Your task to perform on an android device: Add logitech g933 to the cart on bestbuy, then select checkout. Image 0: 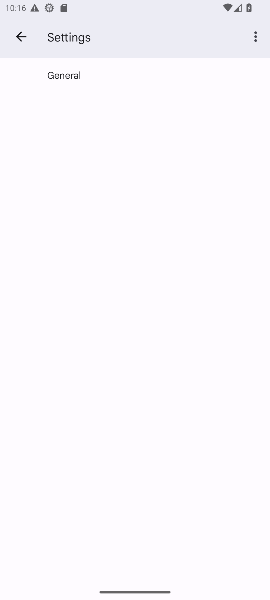
Step 0: press home button
Your task to perform on an android device: Add logitech g933 to the cart on bestbuy, then select checkout. Image 1: 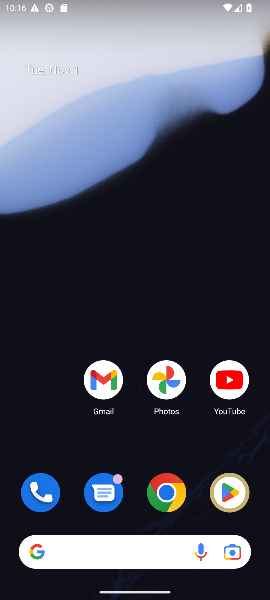
Step 1: click (159, 497)
Your task to perform on an android device: Add logitech g933 to the cart on bestbuy, then select checkout. Image 2: 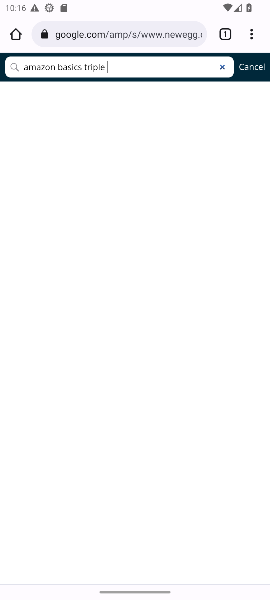
Step 2: click (92, 32)
Your task to perform on an android device: Add logitech g933 to the cart on bestbuy, then select checkout. Image 3: 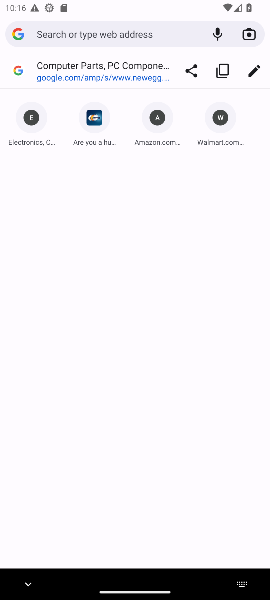
Step 3: type "bestbuy"
Your task to perform on an android device: Add logitech g933 to the cart on bestbuy, then select checkout. Image 4: 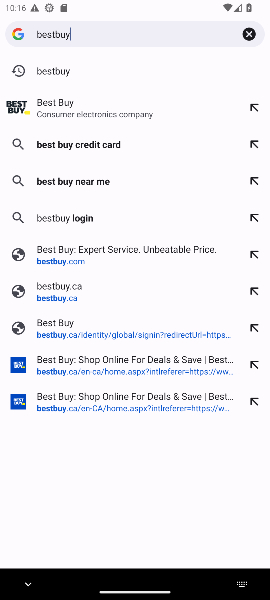
Step 4: click (44, 107)
Your task to perform on an android device: Add logitech g933 to the cart on bestbuy, then select checkout. Image 5: 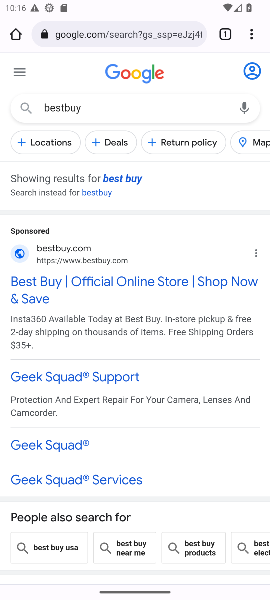
Step 5: drag from (87, 422) to (118, 185)
Your task to perform on an android device: Add logitech g933 to the cart on bestbuy, then select checkout. Image 6: 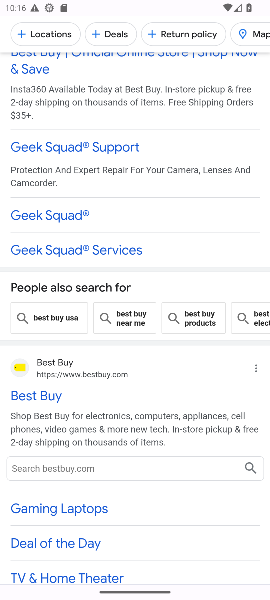
Step 6: click (49, 394)
Your task to perform on an android device: Add logitech g933 to the cart on bestbuy, then select checkout. Image 7: 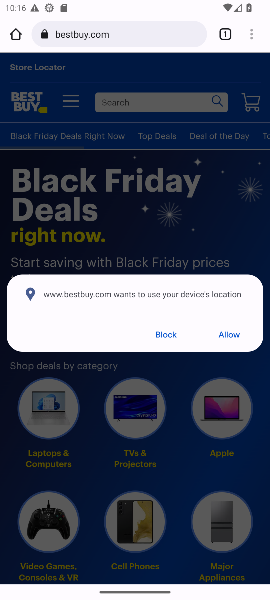
Step 7: click (119, 99)
Your task to perform on an android device: Add logitech g933 to the cart on bestbuy, then select checkout. Image 8: 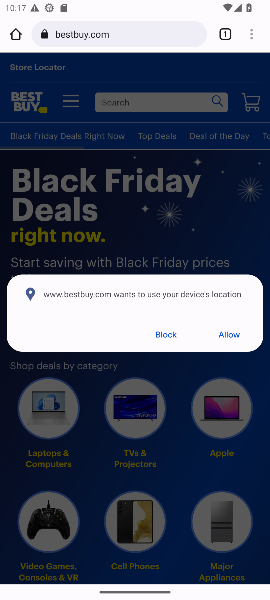
Step 8: click (232, 335)
Your task to perform on an android device: Add logitech g933 to the cart on bestbuy, then select checkout. Image 9: 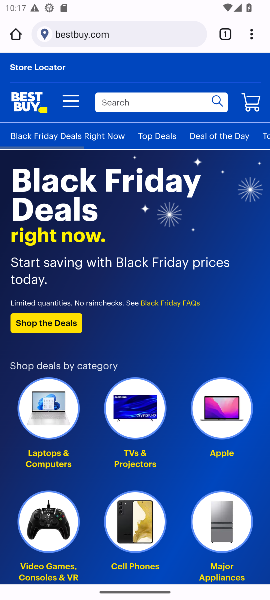
Step 9: click (140, 98)
Your task to perform on an android device: Add logitech g933 to the cart on bestbuy, then select checkout. Image 10: 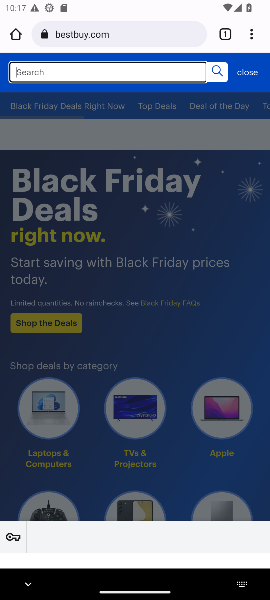
Step 10: type "logitech 933"
Your task to perform on an android device: Add logitech g933 to the cart on bestbuy, then select checkout. Image 11: 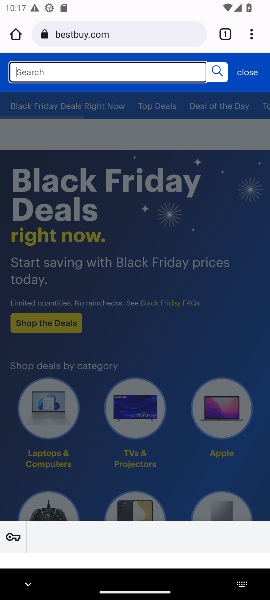
Step 11: type ""
Your task to perform on an android device: Add logitech g933 to the cart on bestbuy, then select checkout. Image 12: 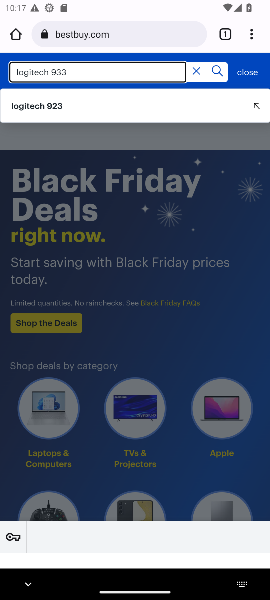
Step 12: click (49, 107)
Your task to perform on an android device: Add logitech g933 to the cart on bestbuy, then select checkout. Image 13: 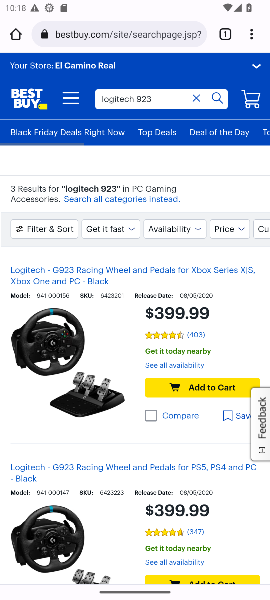
Step 13: drag from (55, 416) to (69, 175)
Your task to perform on an android device: Add logitech g933 to the cart on bestbuy, then select checkout. Image 14: 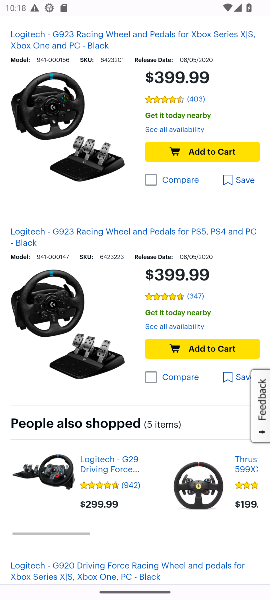
Step 14: click (55, 293)
Your task to perform on an android device: Add logitech g933 to the cart on bestbuy, then select checkout. Image 15: 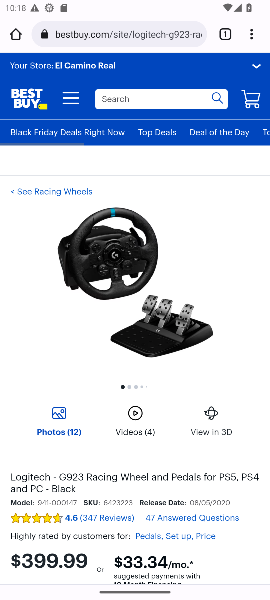
Step 15: drag from (102, 383) to (124, 106)
Your task to perform on an android device: Add logitech g933 to the cart on bestbuy, then select checkout. Image 16: 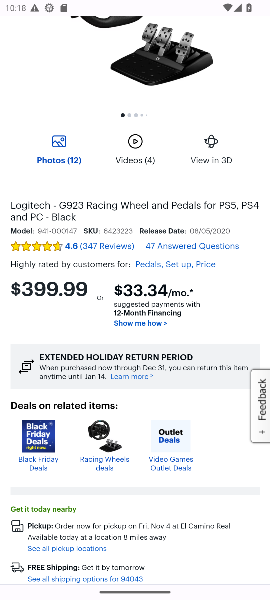
Step 16: drag from (80, 391) to (125, 147)
Your task to perform on an android device: Add logitech g933 to the cart on bestbuy, then select checkout. Image 17: 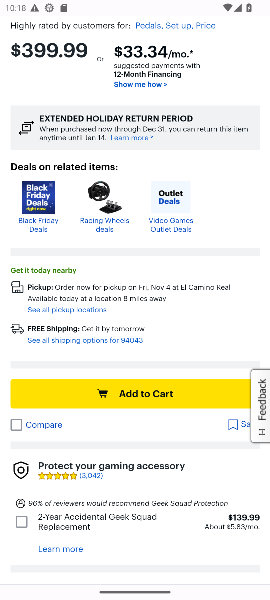
Step 17: click (158, 395)
Your task to perform on an android device: Add logitech g933 to the cart on bestbuy, then select checkout. Image 18: 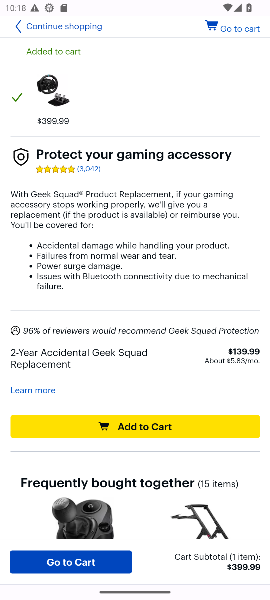
Step 18: click (149, 425)
Your task to perform on an android device: Add logitech g933 to the cart on bestbuy, then select checkout. Image 19: 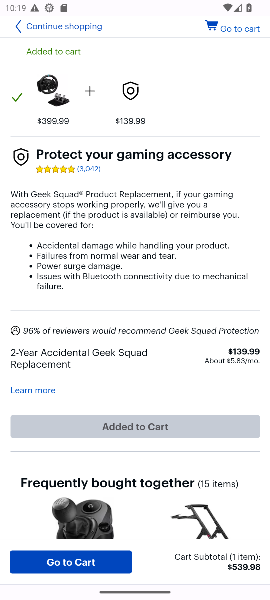
Step 19: click (132, 424)
Your task to perform on an android device: Add logitech g933 to the cart on bestbuy, then select checkout. Image 20: 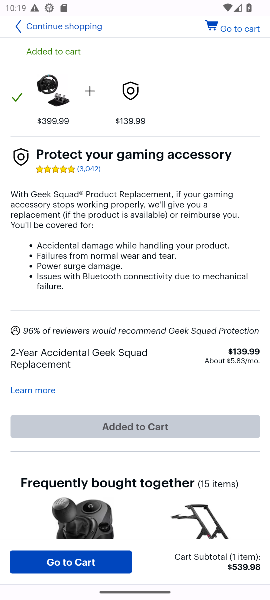
Step 20: click (89, 568)
Your task to perform on an android device: Add logitech g933 to the cart on bestbuy, then select checkout. Image 21: 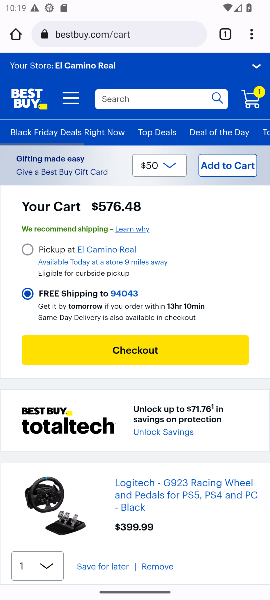
Step 21: drag from (105, 446) to (149, 221)
Your task to perform on an android device: Add logitech g933 to the cart on bestbuy, then select checkout. Image 22: 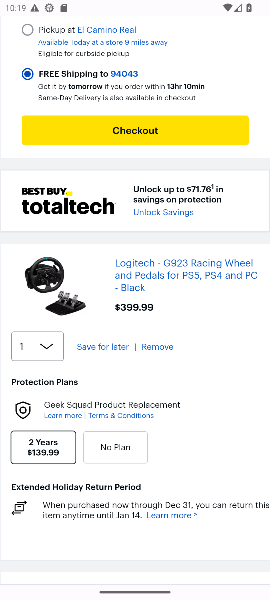
Step 22: drag from (180, 465) to (185, 267)
Your task to perform on an android device: Add logitech g933 to the cart on bestbuy, then select checkout. Image 23: 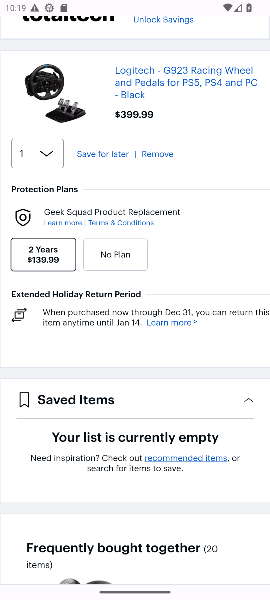
Step 23: drag from (148, 136) to (170, 387)
Your task to perform on an android device: Add logitech g933 to the cart on bestbuy, then select checkout. Image 24: 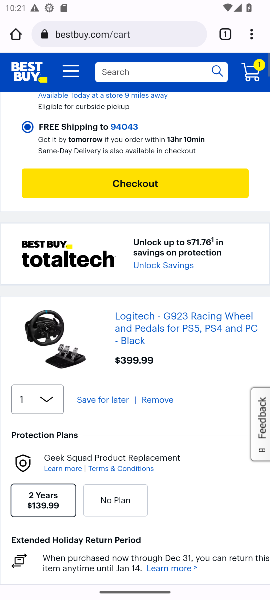
Step 24: click (189, 184)
Your task to perform on an android device: Add logitech g933 to the cart on bestbuy, then select checkout. Image 25: 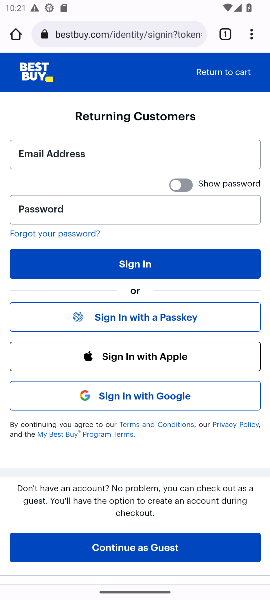
Step 25: task complete